Your task to perform on an android device: turn on javascript in the chrome app Image 0: 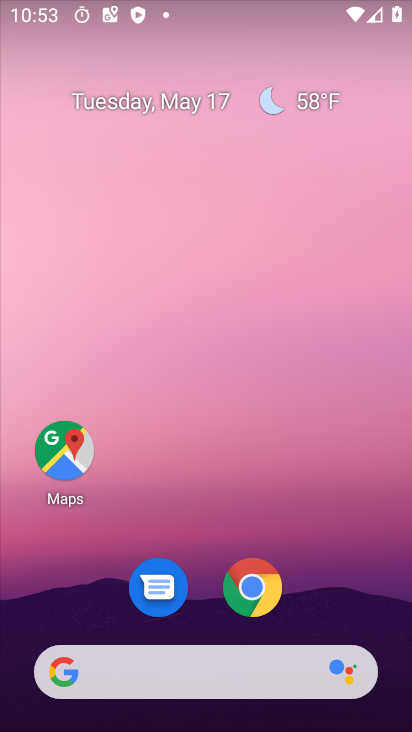
Step 0: click (250, 588)
Your task to perform on an android device: turn on javascript in the chrome app Image 1: 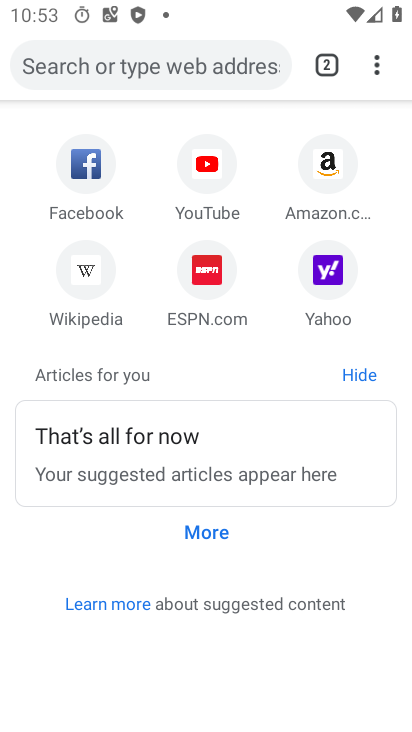
Step 1: click (376, 61)
Your task to perform on an android device: turn on javascript in the chrome app Image 2: 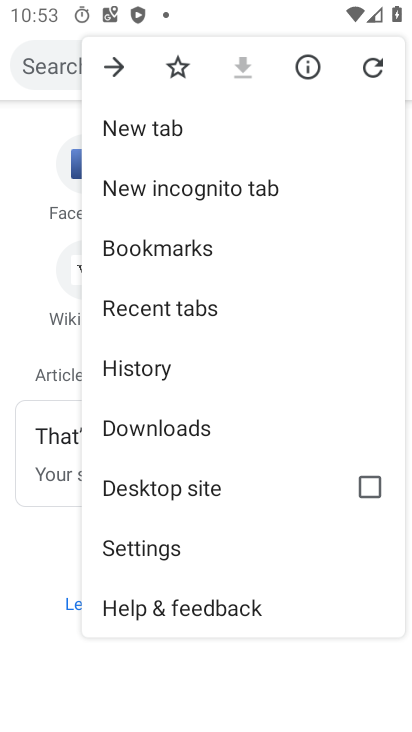
Step 2: click (141, 547)
Your task to perform on an android device: turn on javascript in the chrome app Image 3: 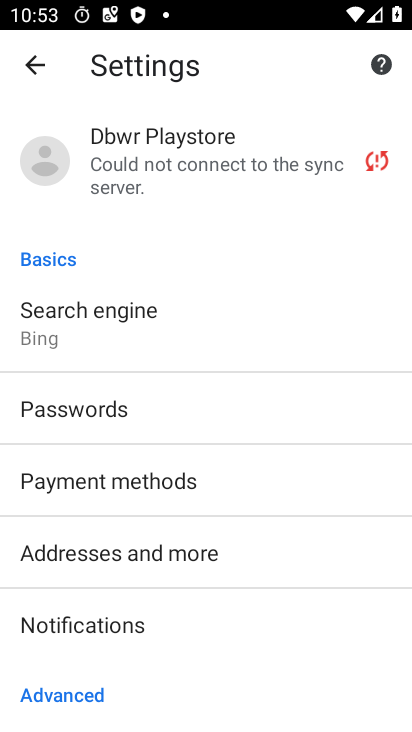
Step 3: drag from (132, 507) to (167, 416)
Your task to perform on an android device: turn on javascript in the chrome app Image 4: 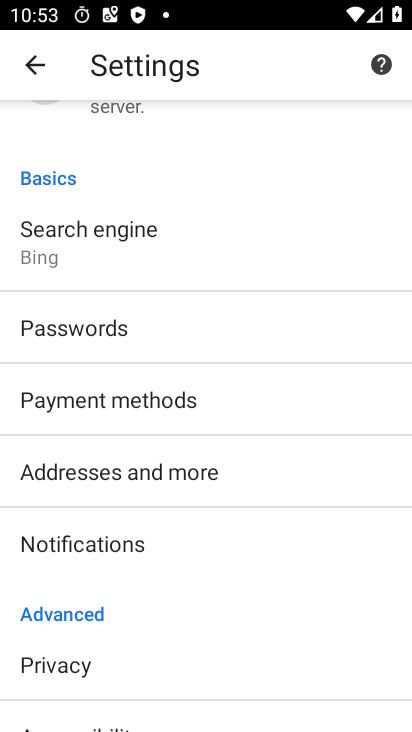
Step 4: drag from (133, 523) to (171, 430)
Your task to perform on an android device: turn on javascript in the chrome app Image 5: 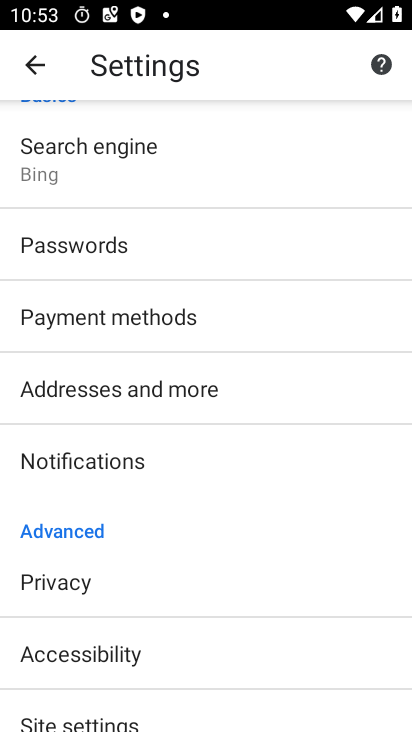
Step 5: drag from (144, 525) to (191, 429)
Your task to perform on an android device: turn on javascript in the chrome app Image 6: 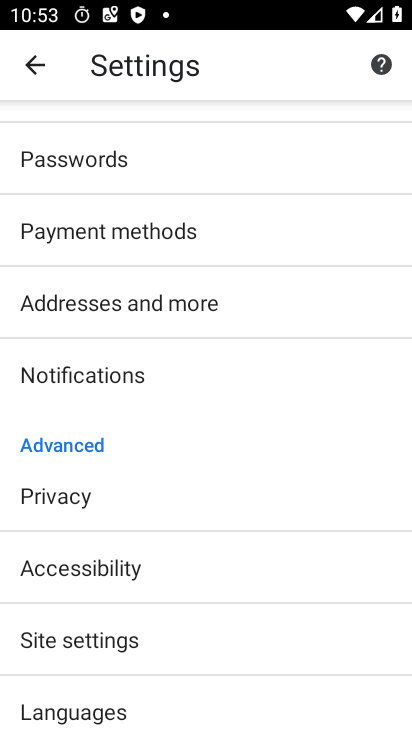
Step 6: drag from (118, 506) to (189, 412)
Your task to perform on an android device: turn on javascript in the chrome app Image 7: 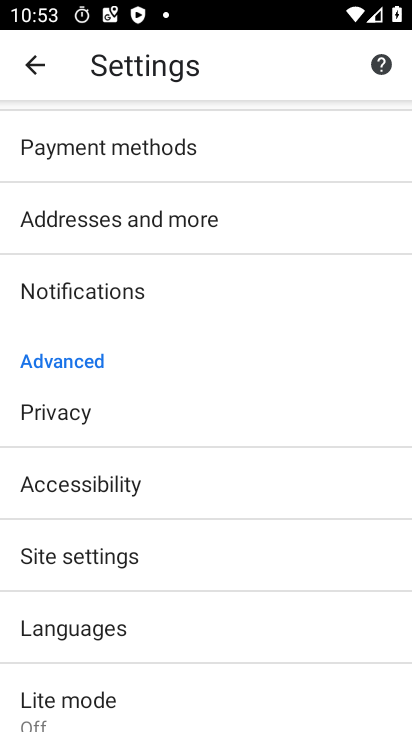
Step 7: click (97, 557)
Your task to perform on an android device: turn on javascript in the chrome app Image 8: 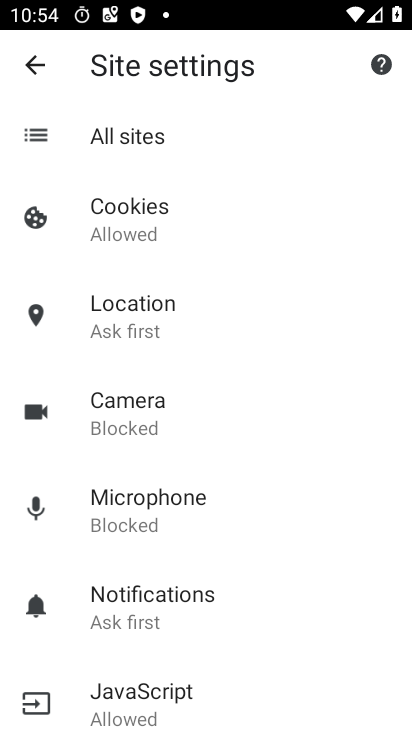
Step 8: drag from (176, 425) to (215, 349)
Your task to perform on an android device: turn on javascript in the chrome app Image 9: 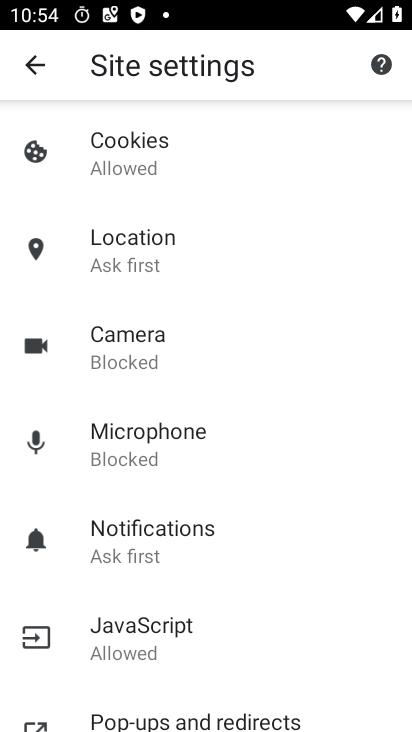
Step 9: drag from (167, 397) to (208, 335)
Your task to perform on an android device: turn on javascript in the chrome app Image 10: 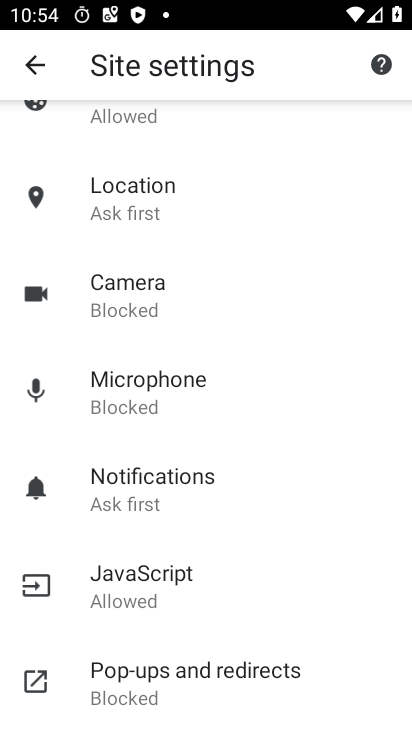
Step 10: drag from (158, 431) to (192, 373)
Your task to perform on an android device: turn on javascript in the chrome app Image 11: 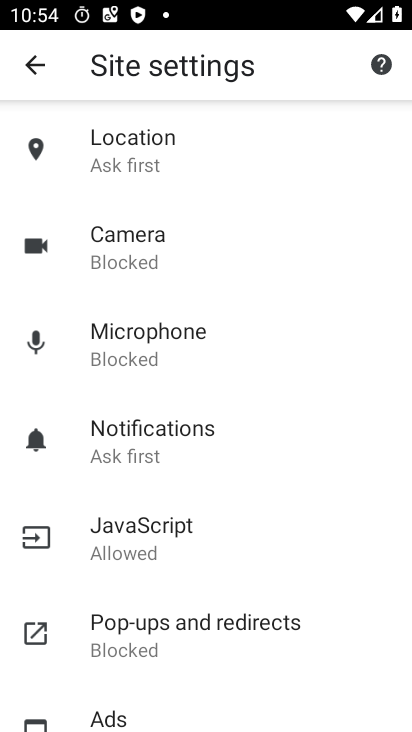
Step 11: click (153, 519)
Your task to perform on an android device: turn on javascript in the chrome app Image 12: 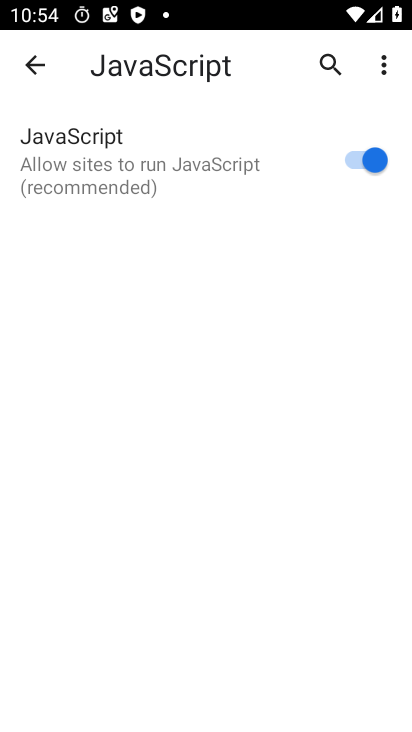
Step 12: task complete